Your task to perform on an android device: Go to Wikipedia Image 0: 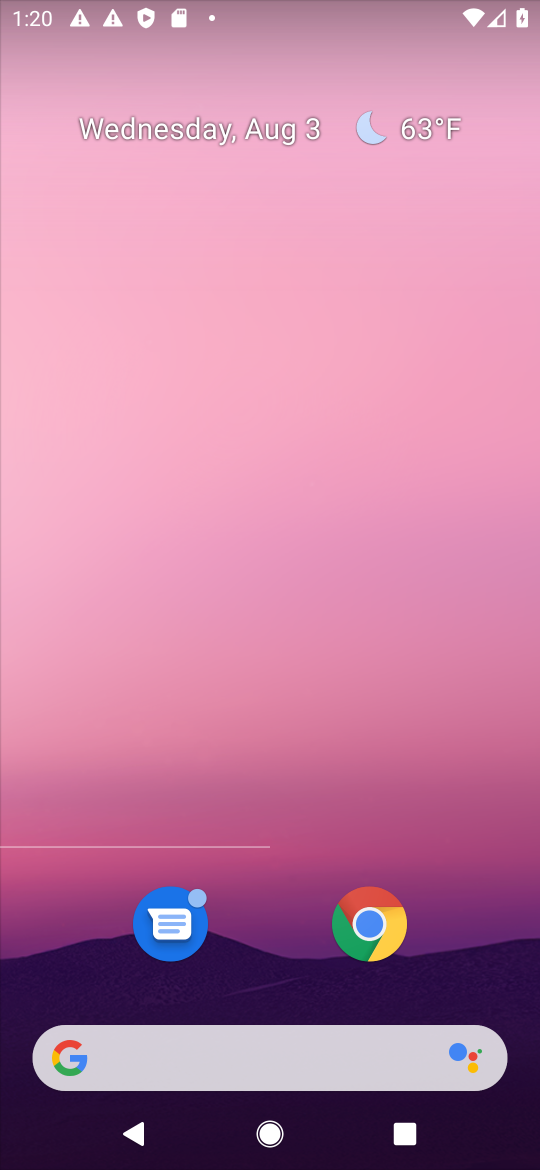
Step 0: press home button
Your task to perform on an android device: Go to Wikipedia Image 1: 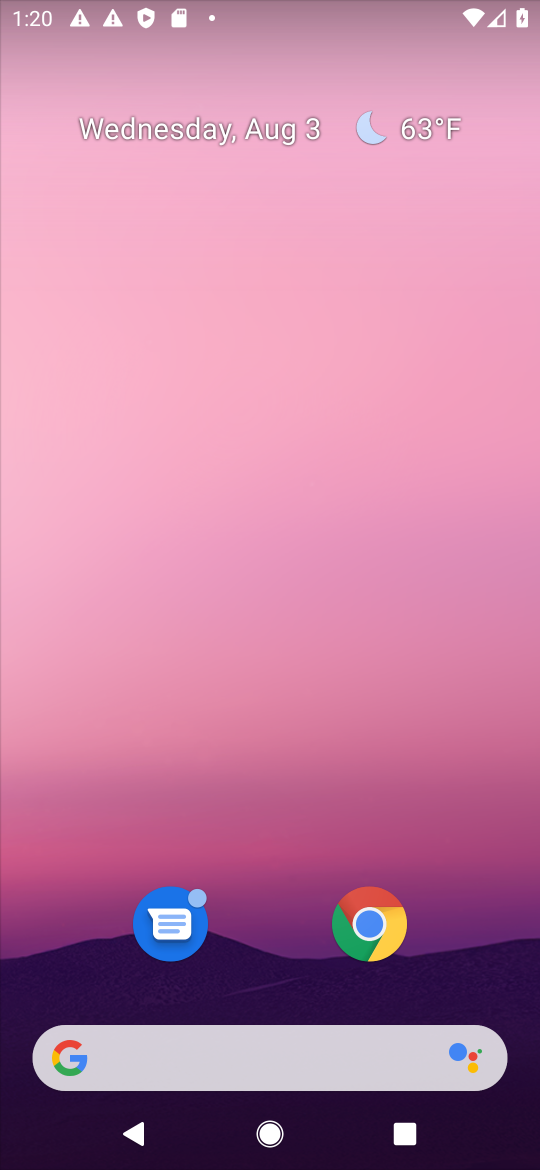
Step 1: drag from (289, 985) to (330, 201)
Your task to perform on an android device: Go to Wikipedia Image 2: 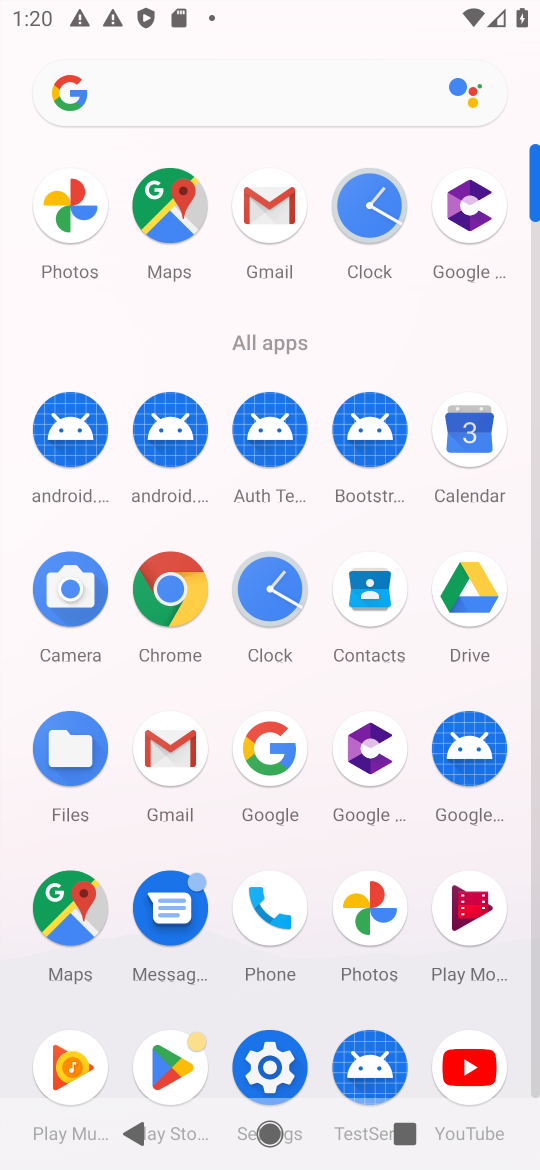
Step 2: click (168, 586)
Your task to perform on an android device: Go to Wikipedia Image 3: 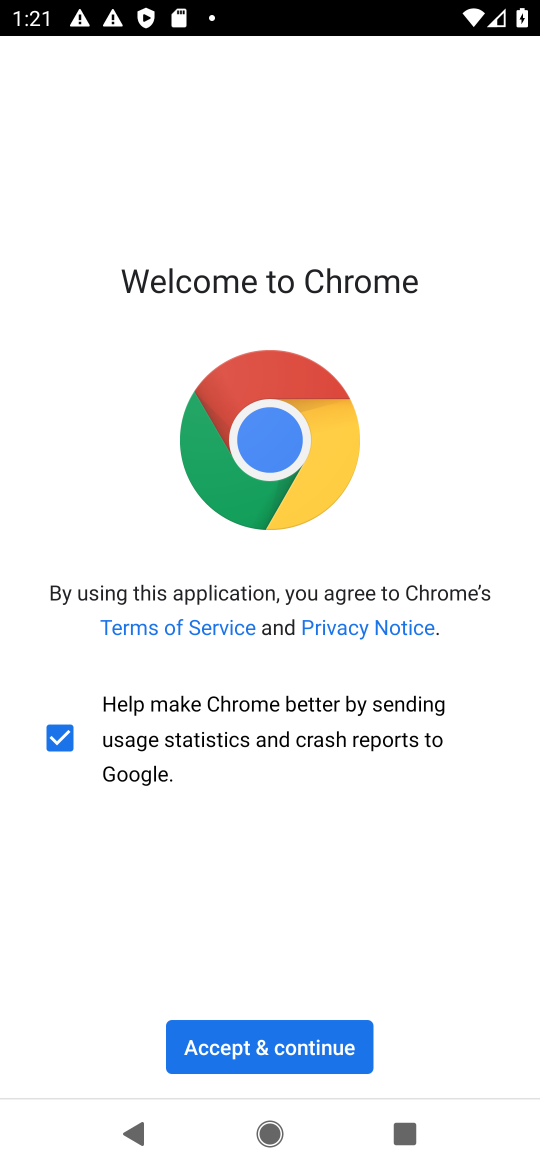
Step 3: click (259, 1042)
Your task to perform on an android device: Go to Wikipedia Image 4: 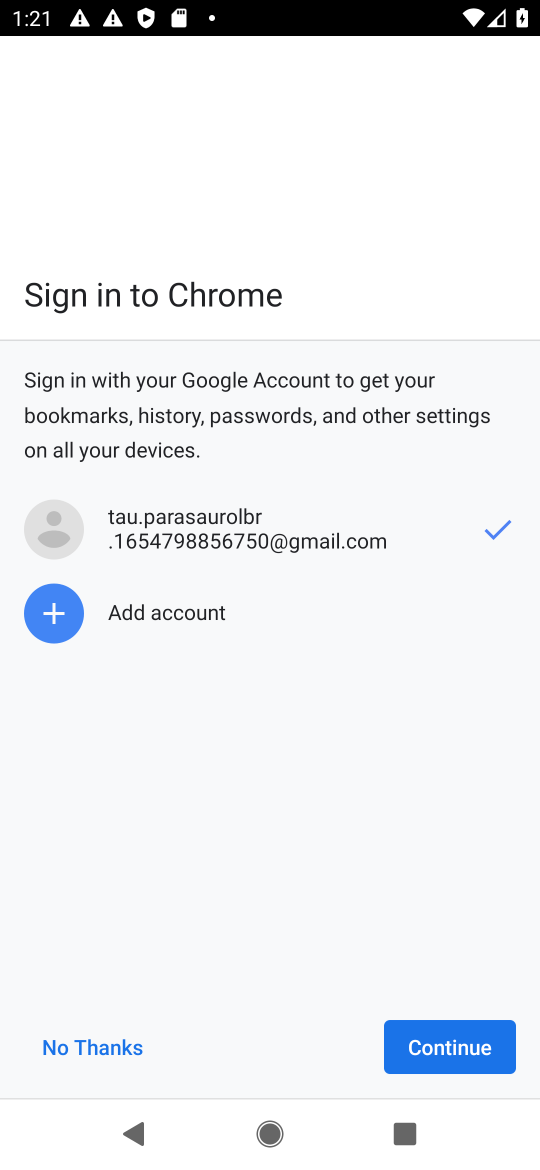
Step 4: click (440, 1043)
Your task to perform on an android device: Go to Wikipedia Image 5: 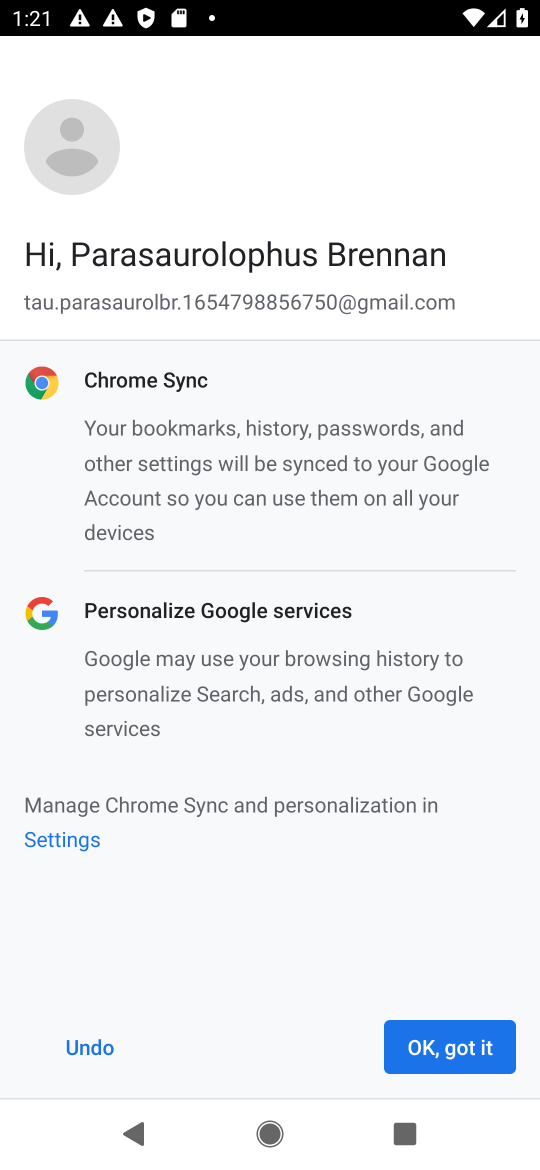
Step 5: click (448, 1042)
Your task to perform on an android device: Go to Wikipedia Image 6: 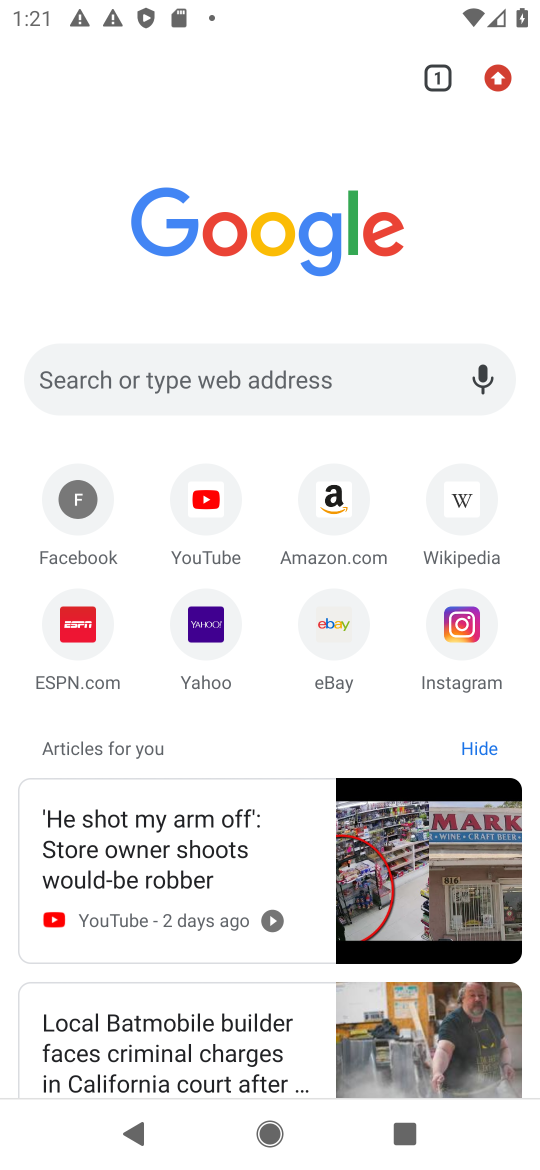
Step 6: click (456, 485)
Your task to perform on an android device: Go to Wikipedia Image 7: 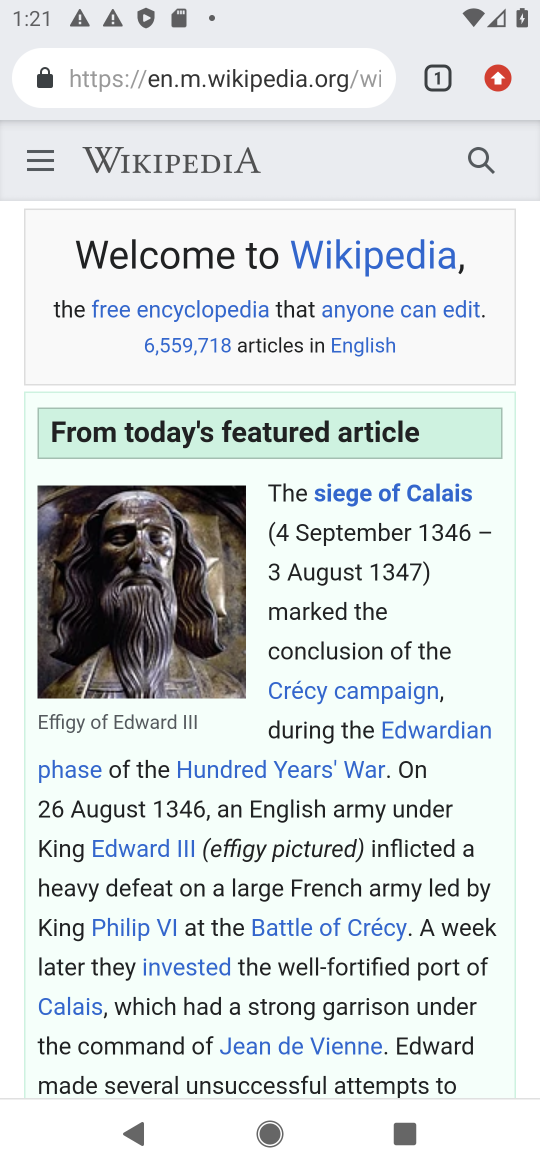
Step 7: task complete